Your task to perform on an android device: change the clock style Image 0: 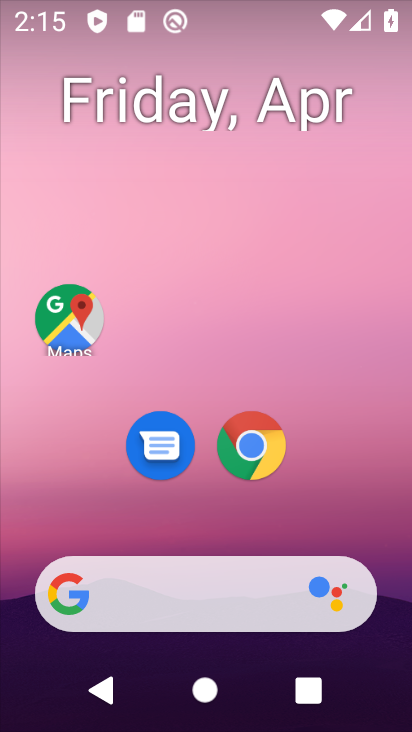
Step 0: drag from (316, 474) to (274, 4)
Your task to perform on an android device: change the clock style Image 1: 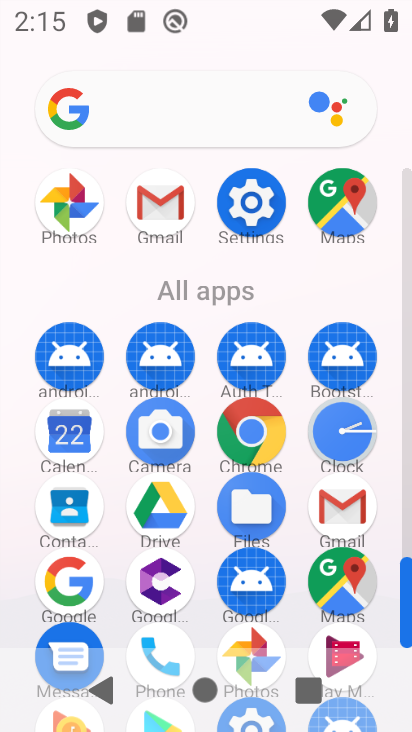
Step 1: click (344, 429)
Your task to perform on an android device: change the clock style Image 2: 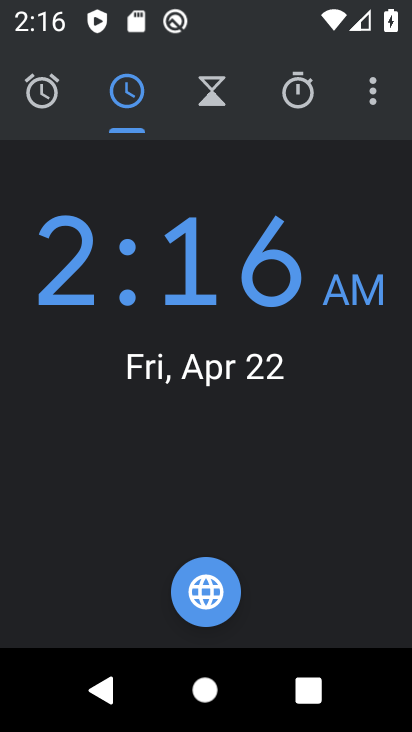
Step 2: click (375, 93)
Your task to perform on an android device: change the clock style Image 3: 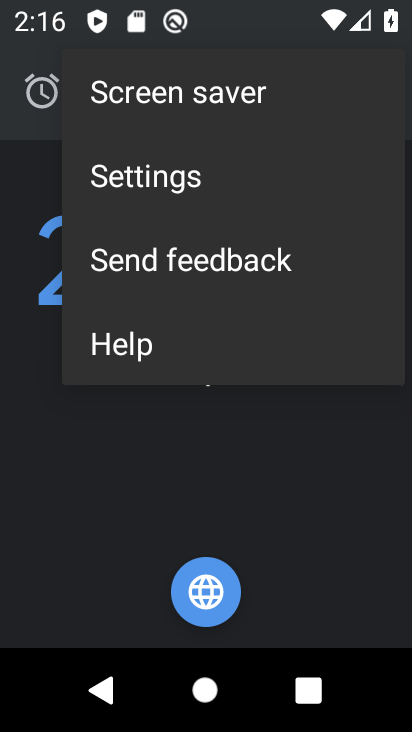
Step 3: click (194, 194)
Your task to perform on an android device: change the clock style Image 4: 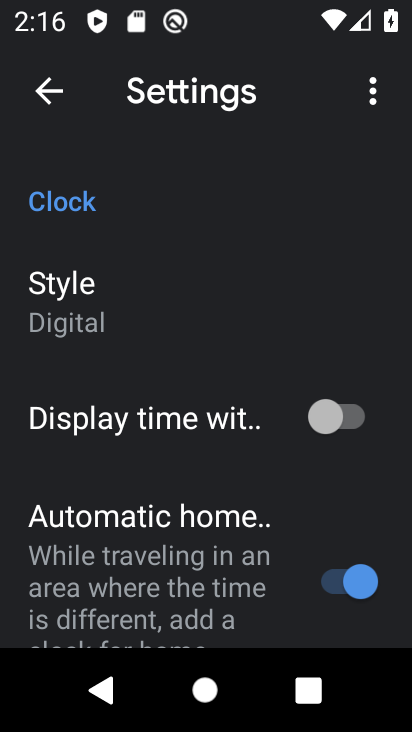
Step 4: click (143, 299)
Your task to perform on an android device: change the clock style Image 5: 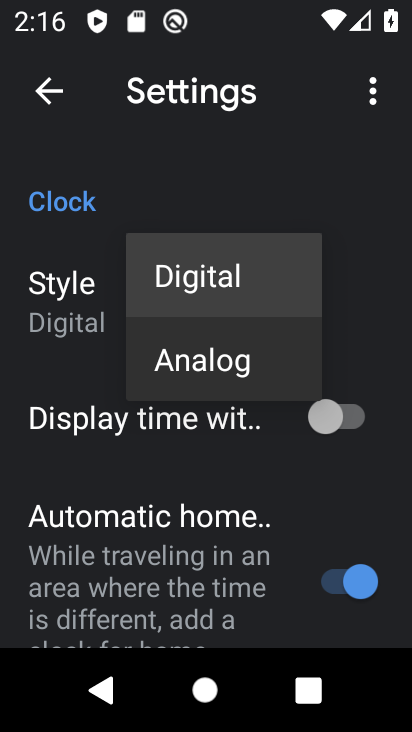
Step 5: click (189, 357)
Your task to perform on an android device: change the clock style Image 6: 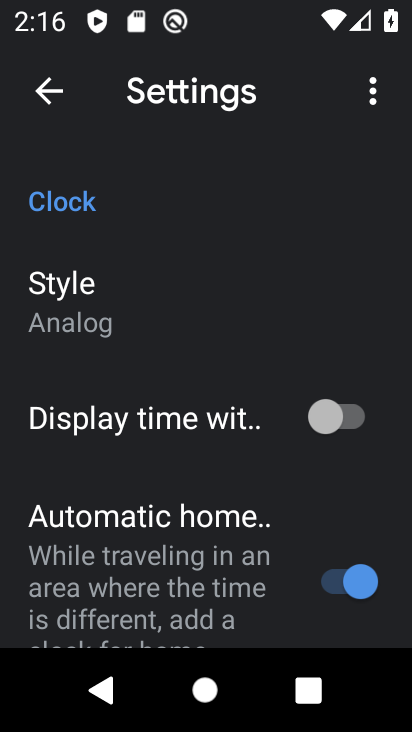
Step 6: task complete